Your task to perform on an android device: Search for apple airpods on target, select the first entry, and add it to the cart. Image 0: 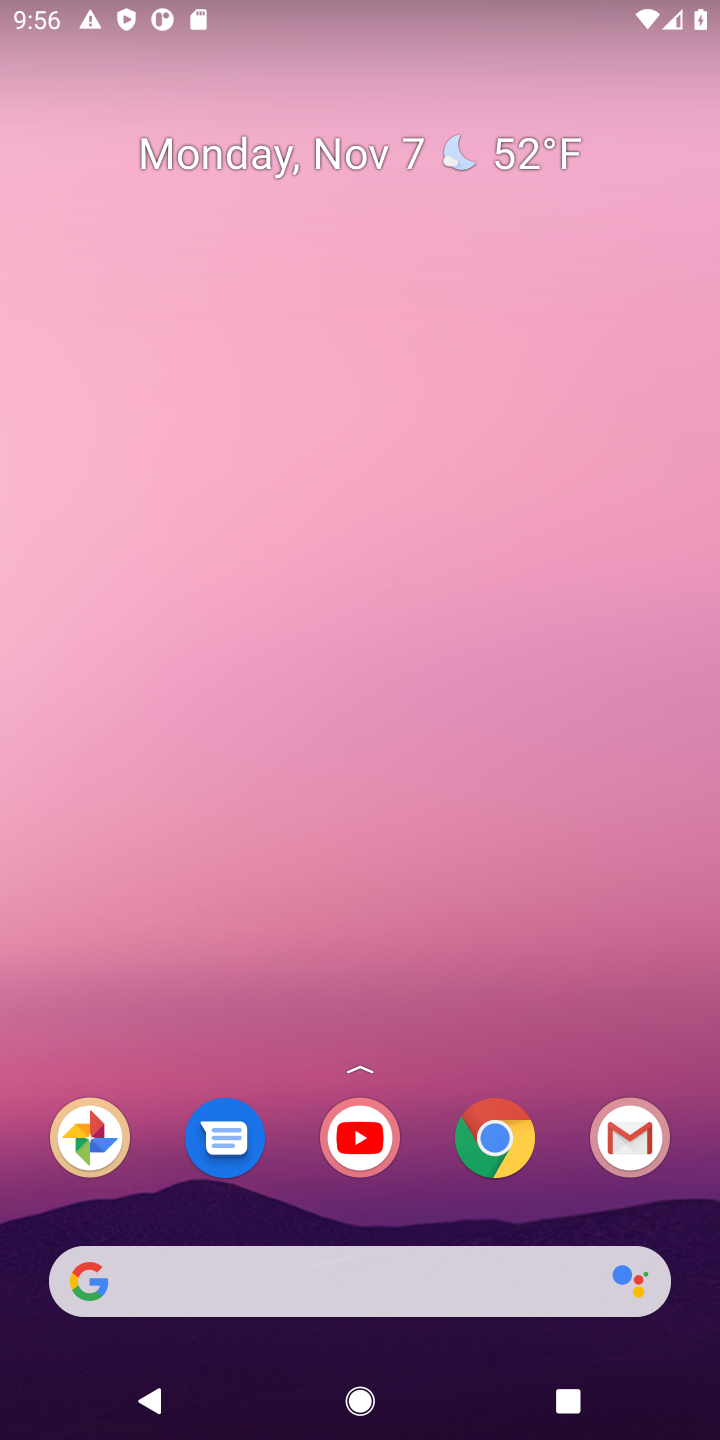
Step 0: drag from (453, 1053) to (436, 44)
Your task to perform on an android device: Search for apple airpods on target, select the first entry, and add it to the cart. Image 1: 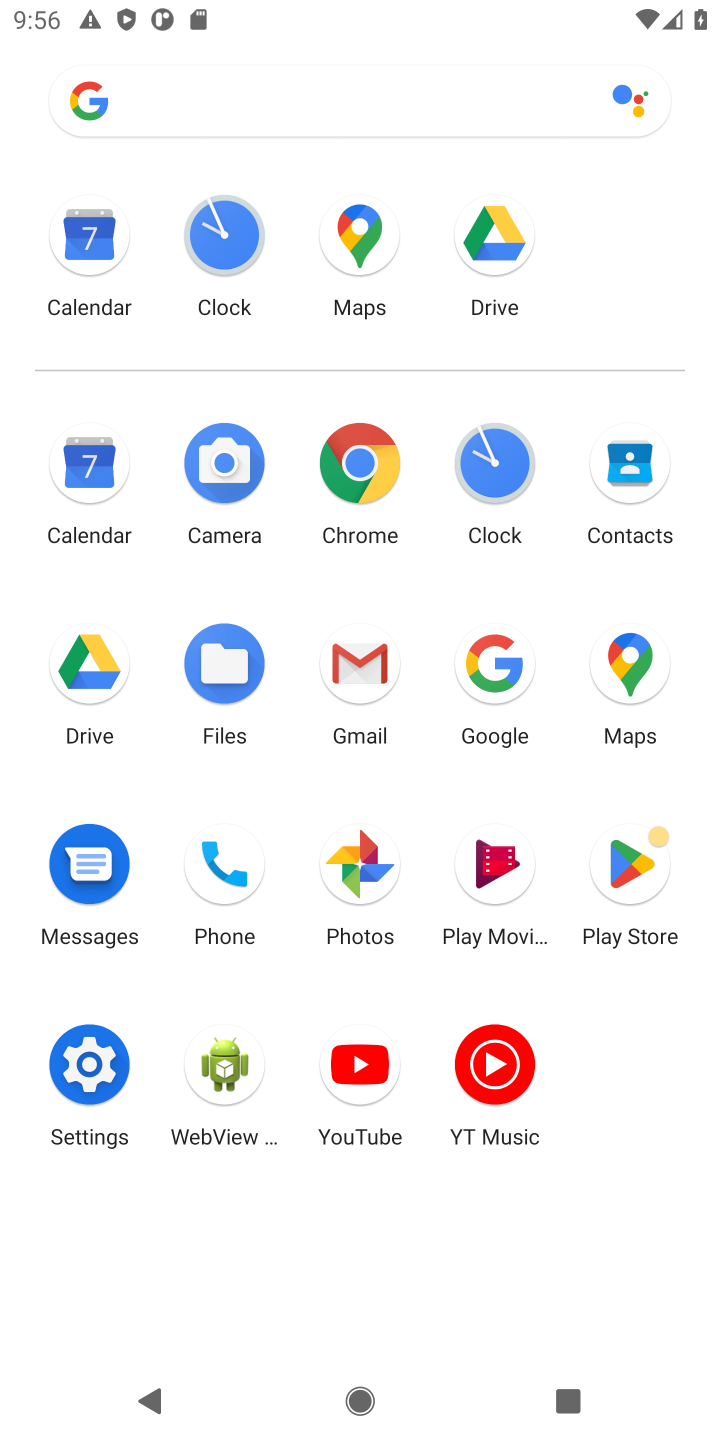
Step 1: click (361, 451)
Your task to perform on an android device: Search for apple airpods on target, select the first entry, and add it to the cart. Image 2: 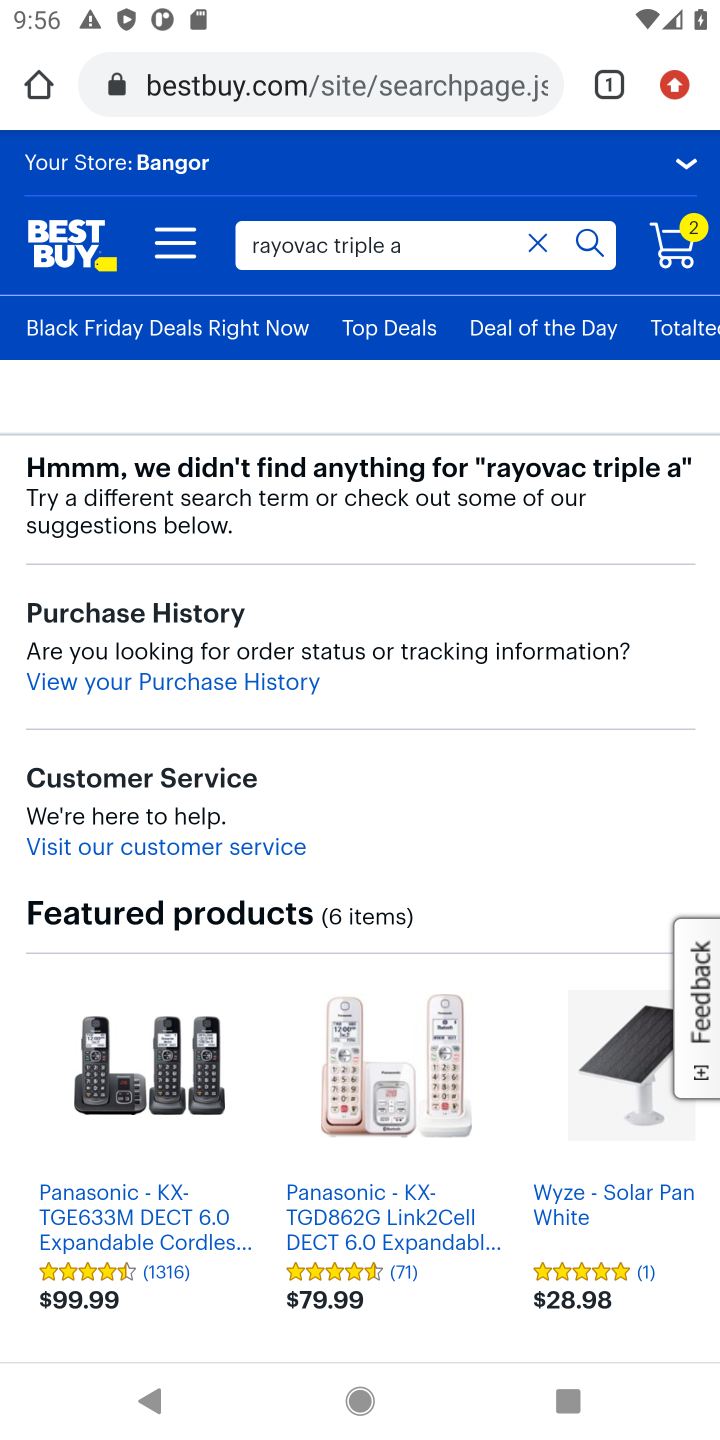
Step 2: click (359, 102)
Your task to perform on an android device: Search for apple airpods on target, select the first entry, and add it to the cart. Image 3: 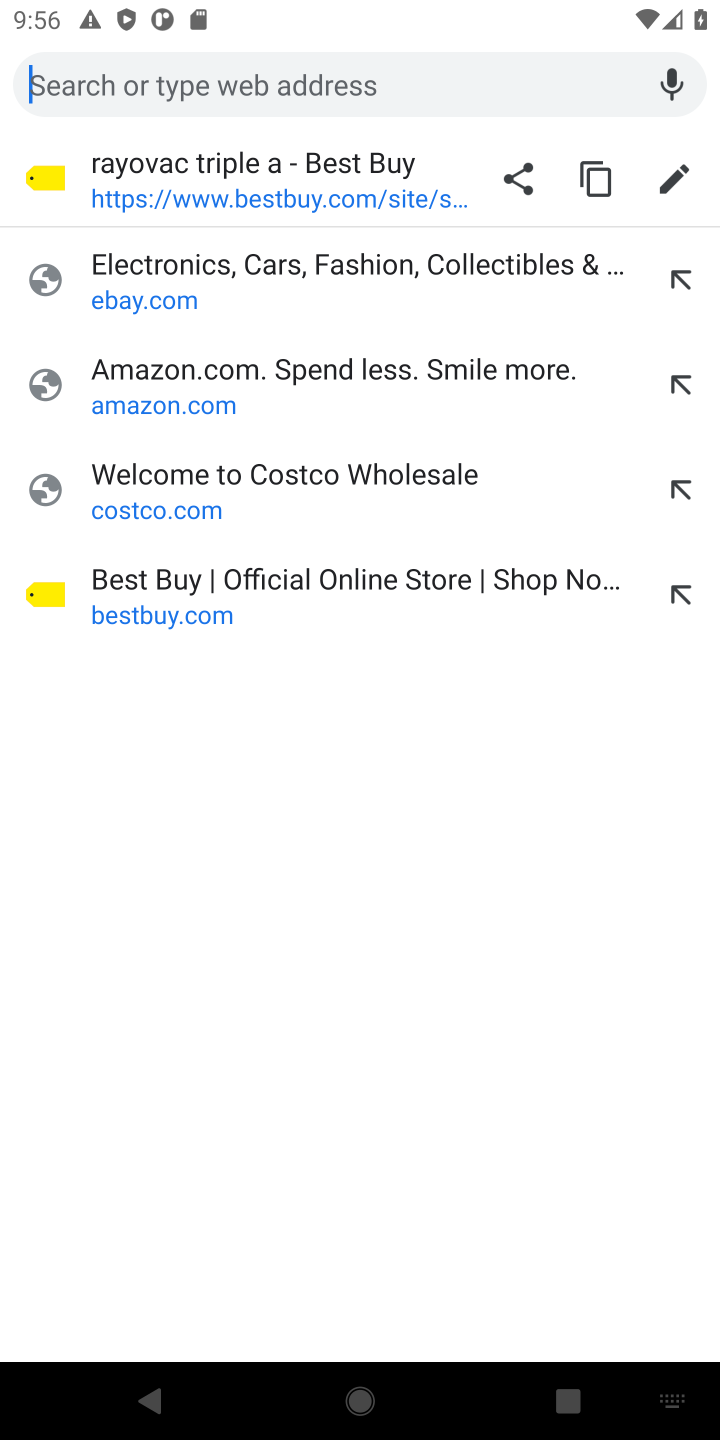
Step 3: type "target.com"
Your task to perform on an android device: Search for apple airpods on target, select the first entry, and add it to the cart. Image 4: 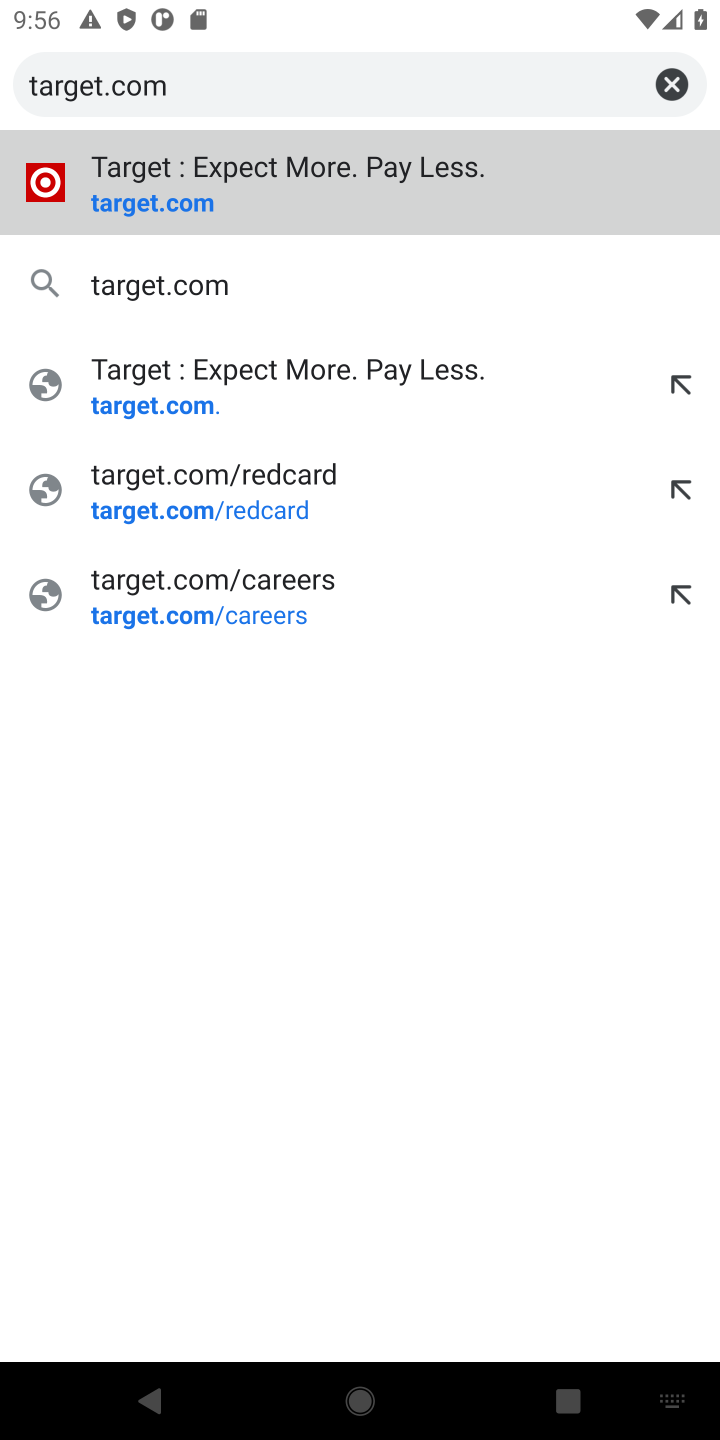
Step 4: press enter
Your task to perform on an android device: Search for apple airpods on target, select the first entry, and add it to the cart. Image 5: 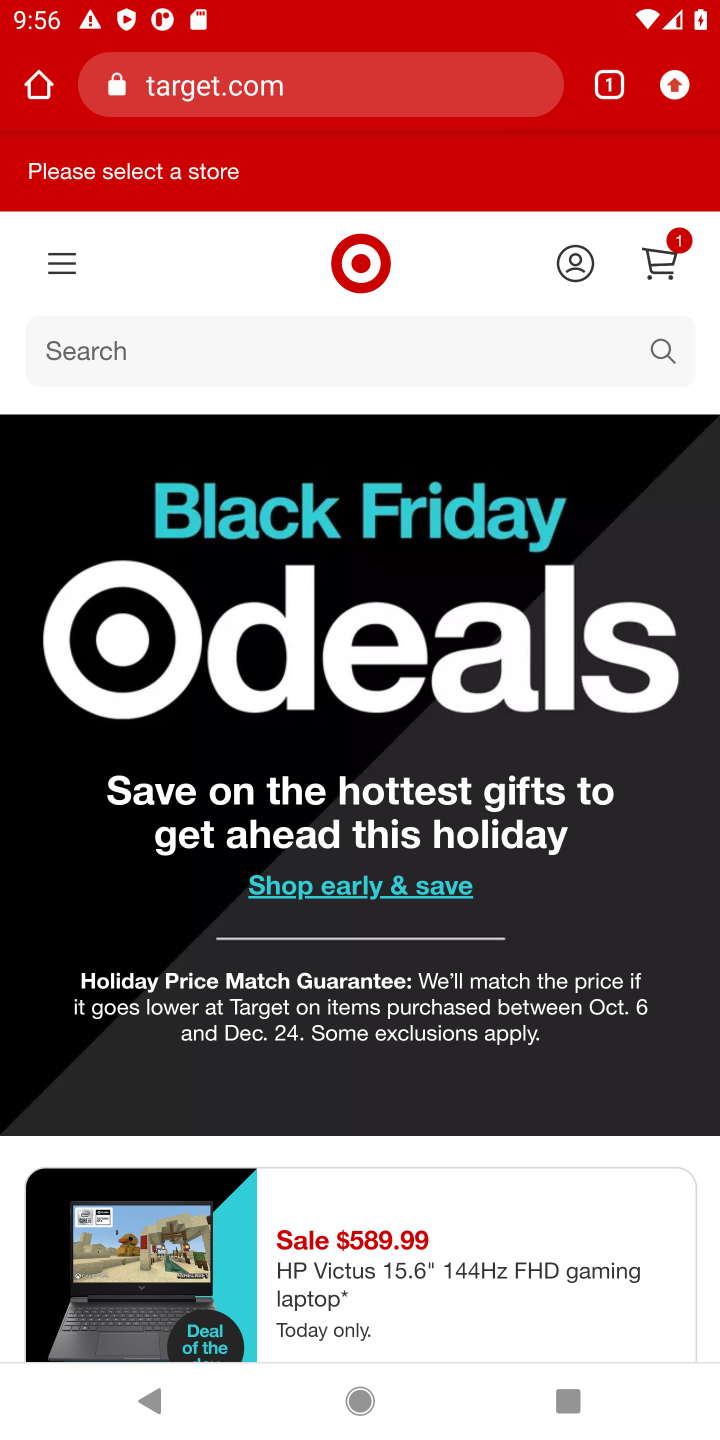
Step 5: click (224, 354)
Your task to perform on an android device: Search for apple airpods on target, select the first entry, and add it to the cart. Image 6: 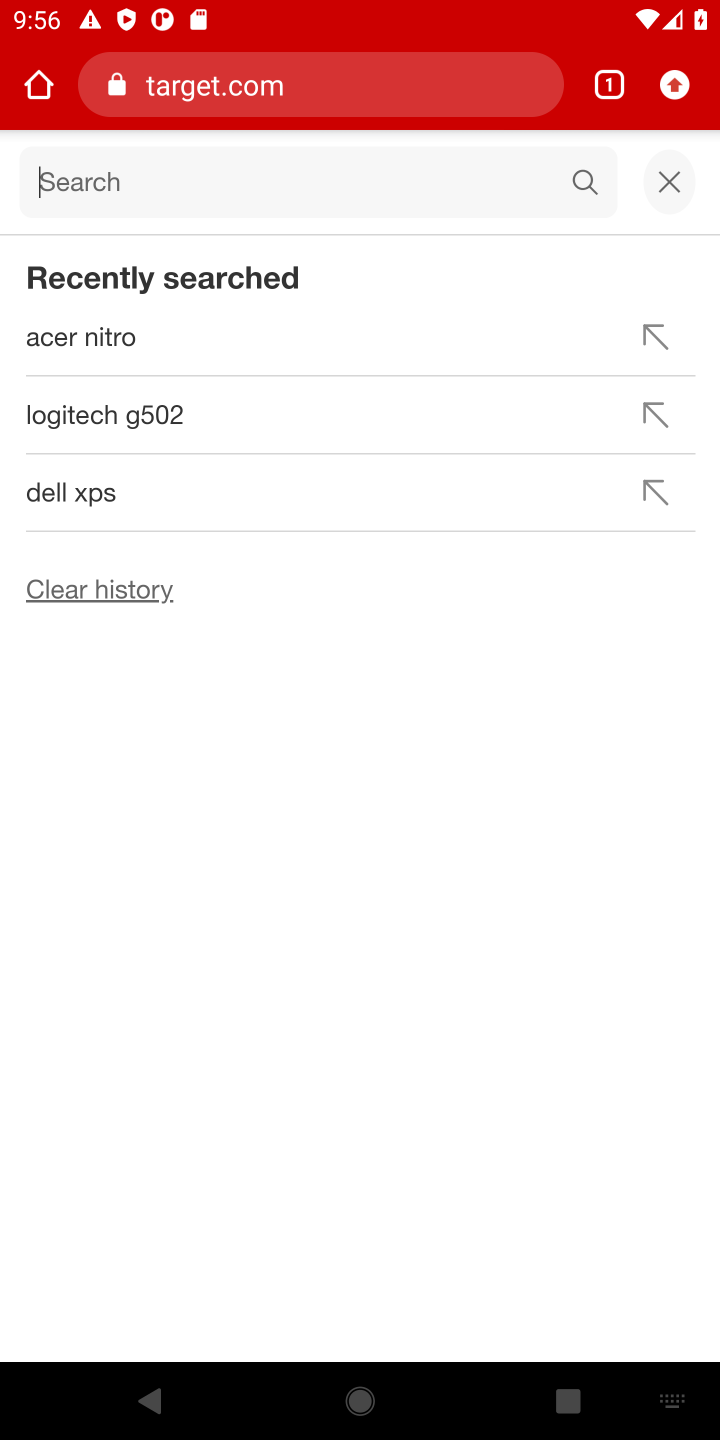
Step 6: type "apple airpods"
Your task to perform on an android device: Search for apple airpods on target, select the first entry, and add it to the cart. Image 7: 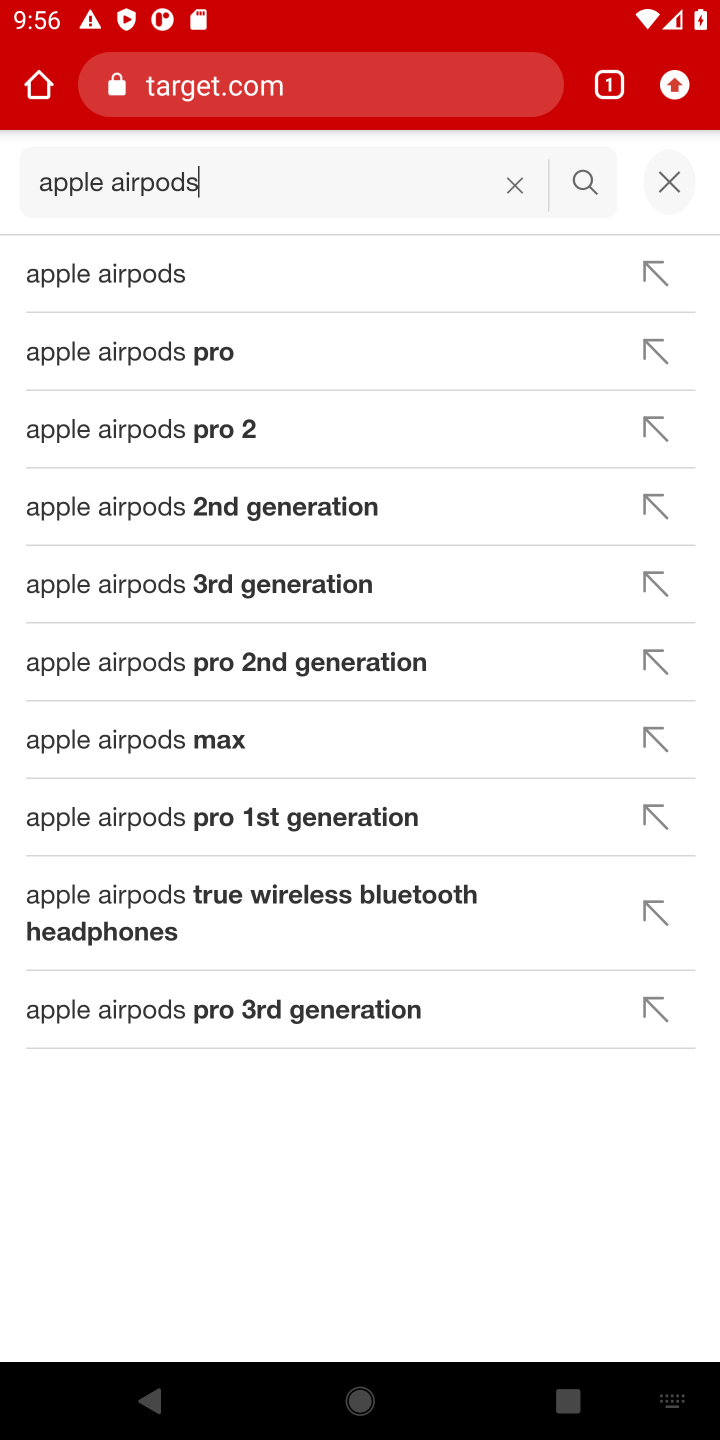
Step 7: press enter
Your task to perform on an android device: Search for apple airpods on target, select the first entry, and add it to the cart. Image 8: 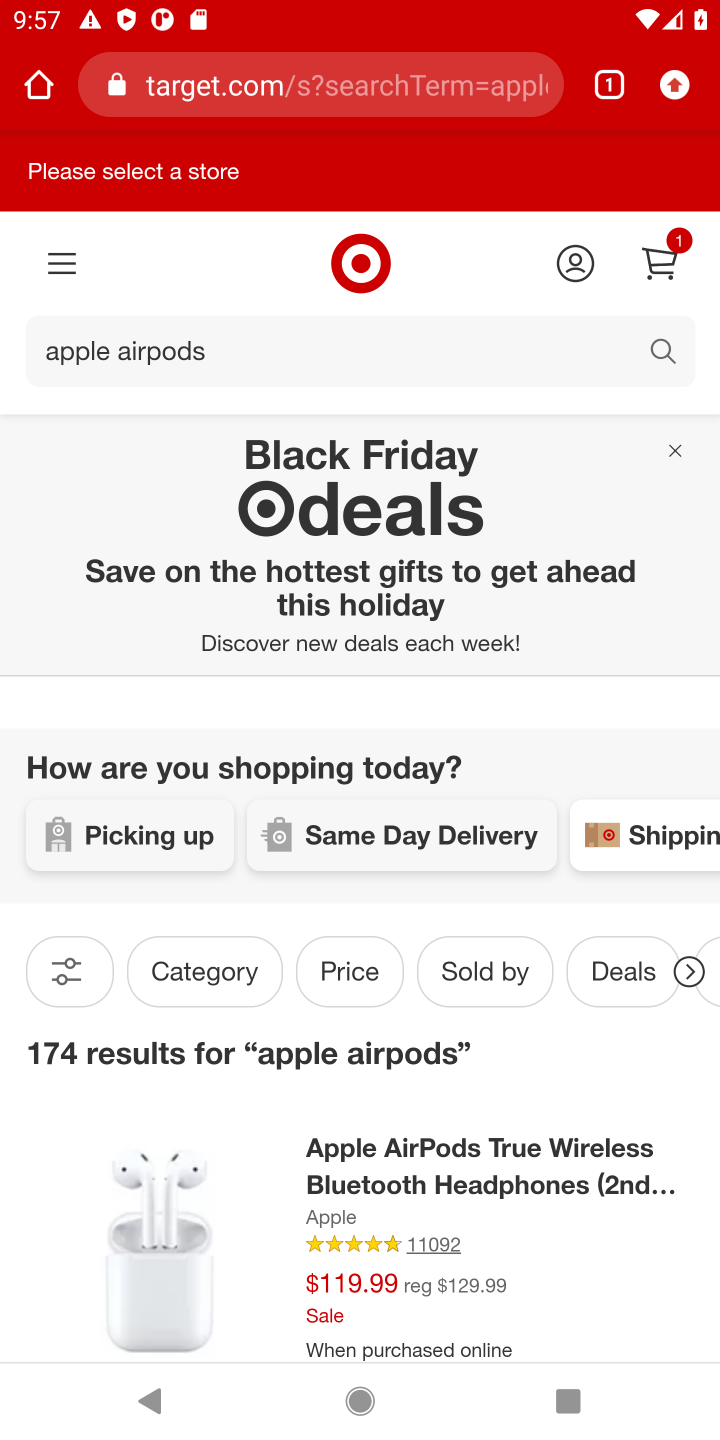
Step 8: drag from (272, 1265) to (356, 462)
Your task to perform on an android device: Search for apple airpods on target, select the first entry, and add it to the cart. Image 9: 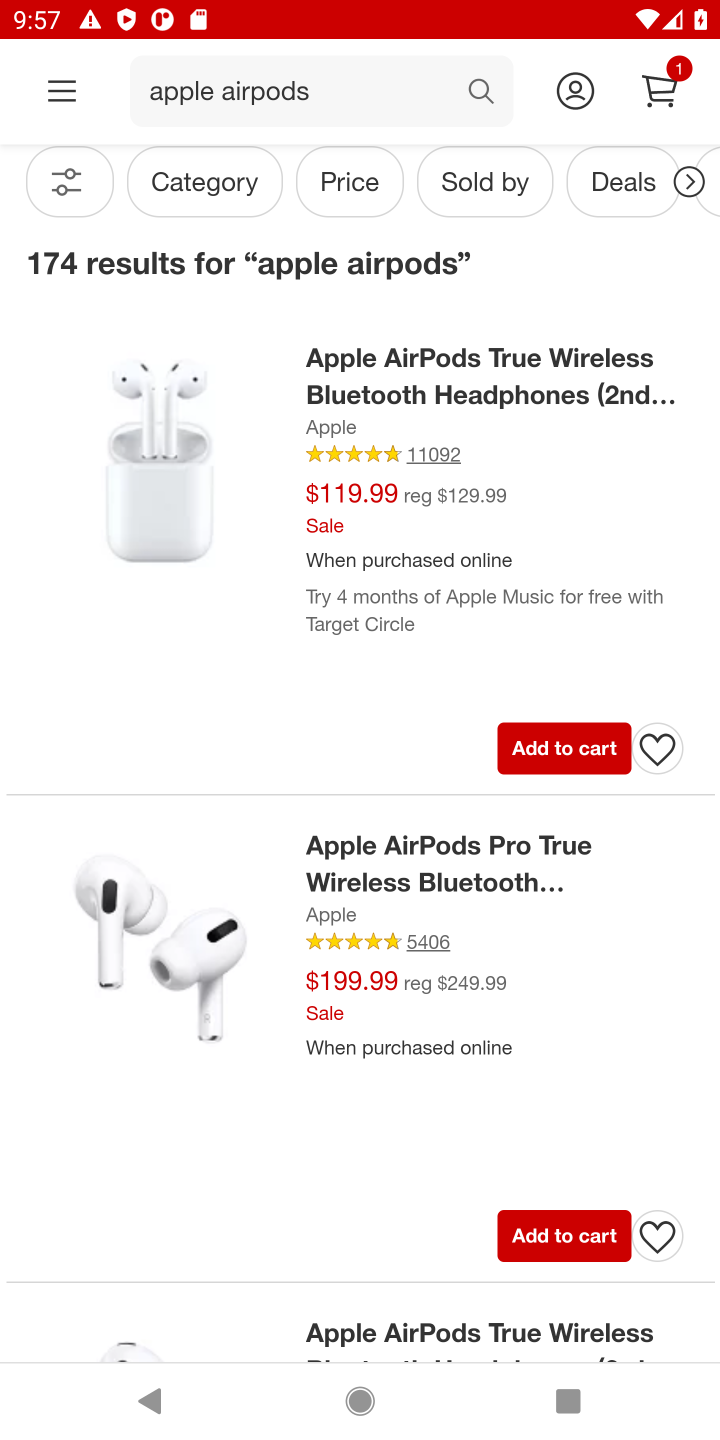
Step 9: click (553, 751)
Your task to perform on an android device: Search for apple airpods on target, select the first entry, and add it to the cart. Image 10: 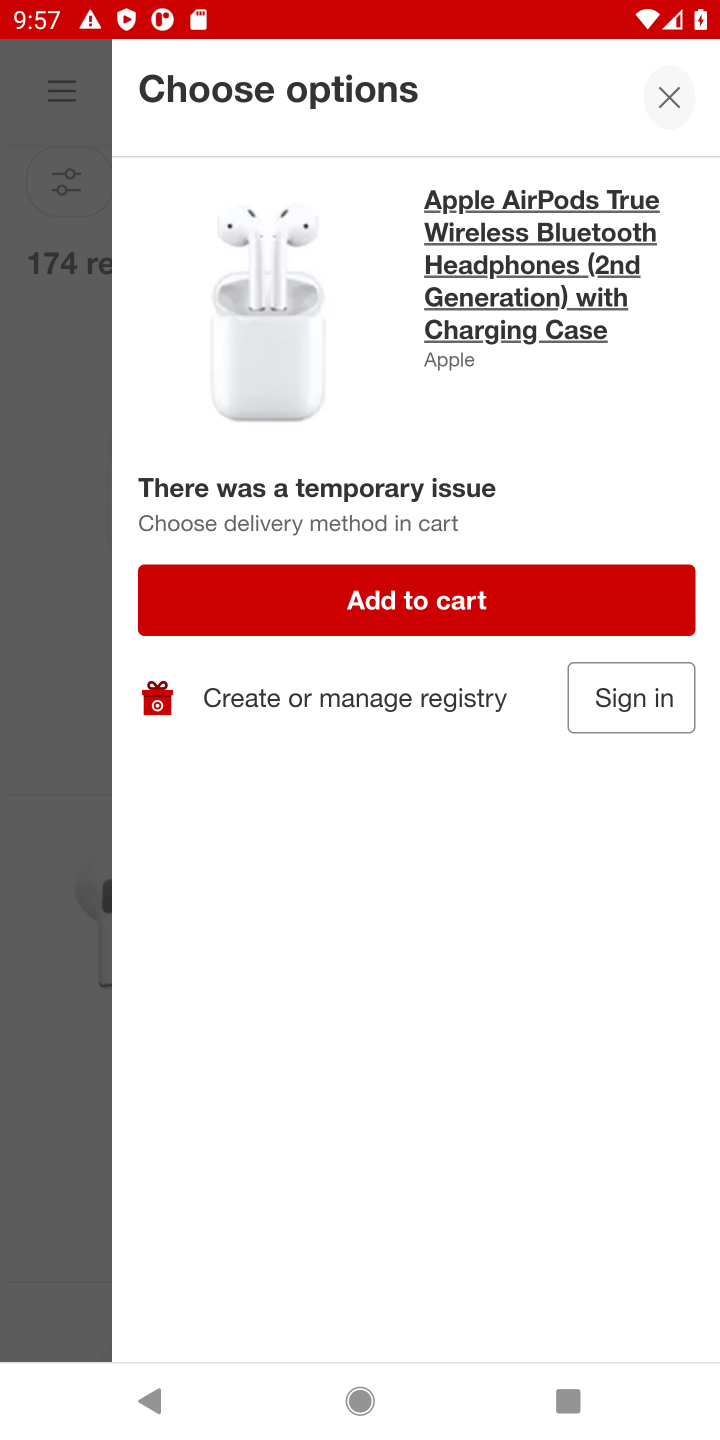
Step 10: click (478, 597)
Your task to perform on an android device: Search for apple airpods on target, select the first entry, and add it to the cart. Image 11: 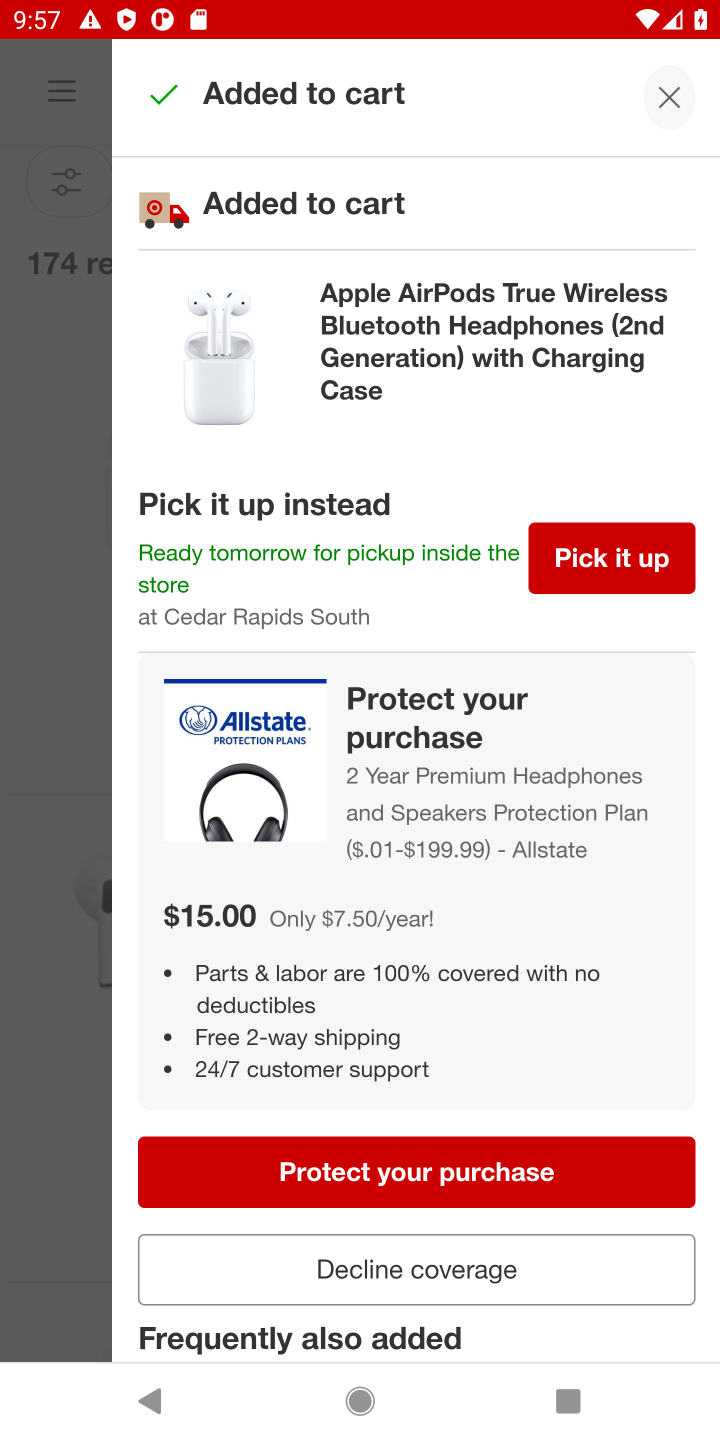
Step 11: task complete